Your task to perform on an android device: move an email to a new category in the gmail app Image 0: 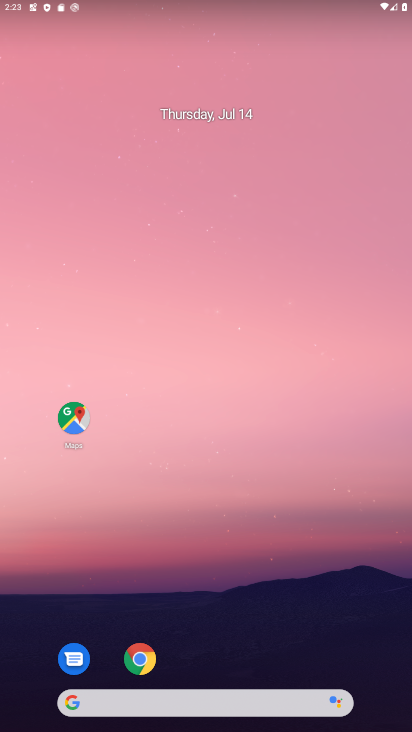
Step 0: press home button
Your task to perform on an android device: move an email to a new category in the gmail app Image 1: 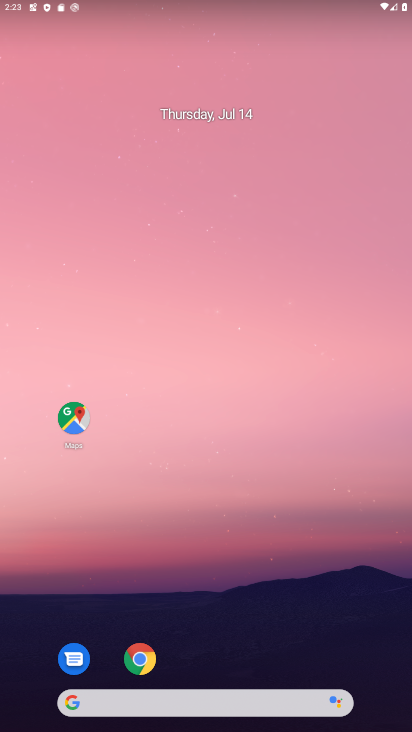
Step 1: drag from (247, 641) to (224, 0)
Your task to perform on an android device: move an email to a new category in the gmail app Image 2: 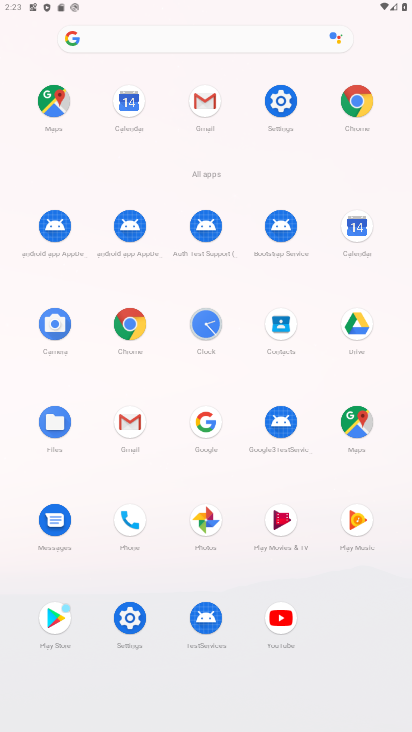
Step 2: click (205, 109)
Your task to perform on an android device: move an email to a new category in the gmail app Image 3: 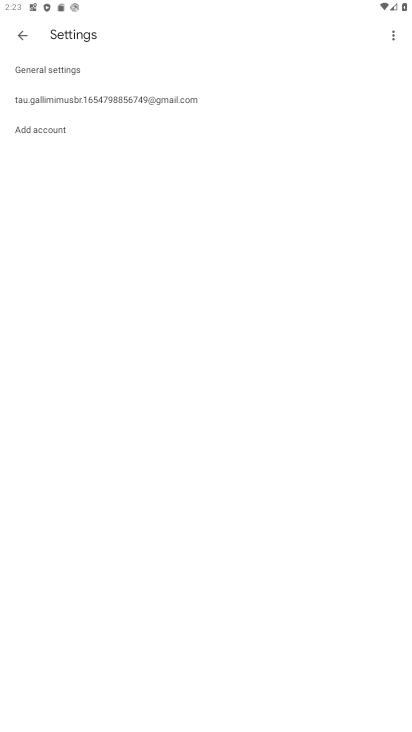
Step 3: press back button
Your task to perform on an android device: move an email to a new category in the gmail app Image 4: 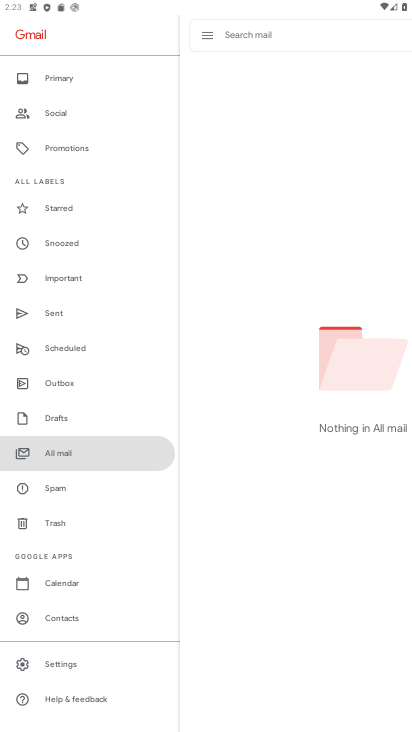
Step 4: click (50, 450)
Your task to perform on an android device: move an email to a new category in the gmail app Image 5: 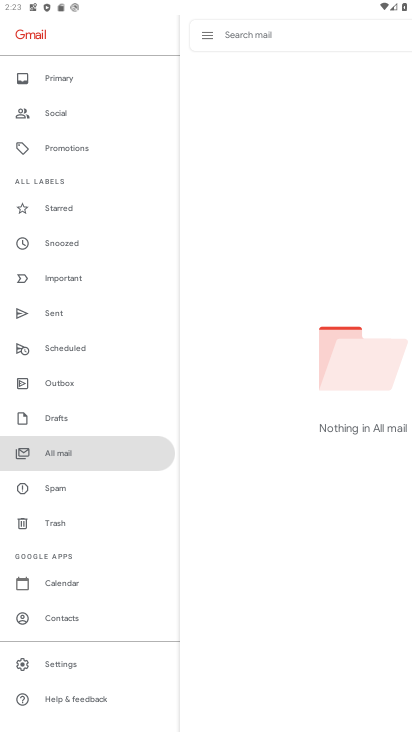
Step 5: task complete